Your task to perform on an android device: delete browsing data in the chrome app Image 0: 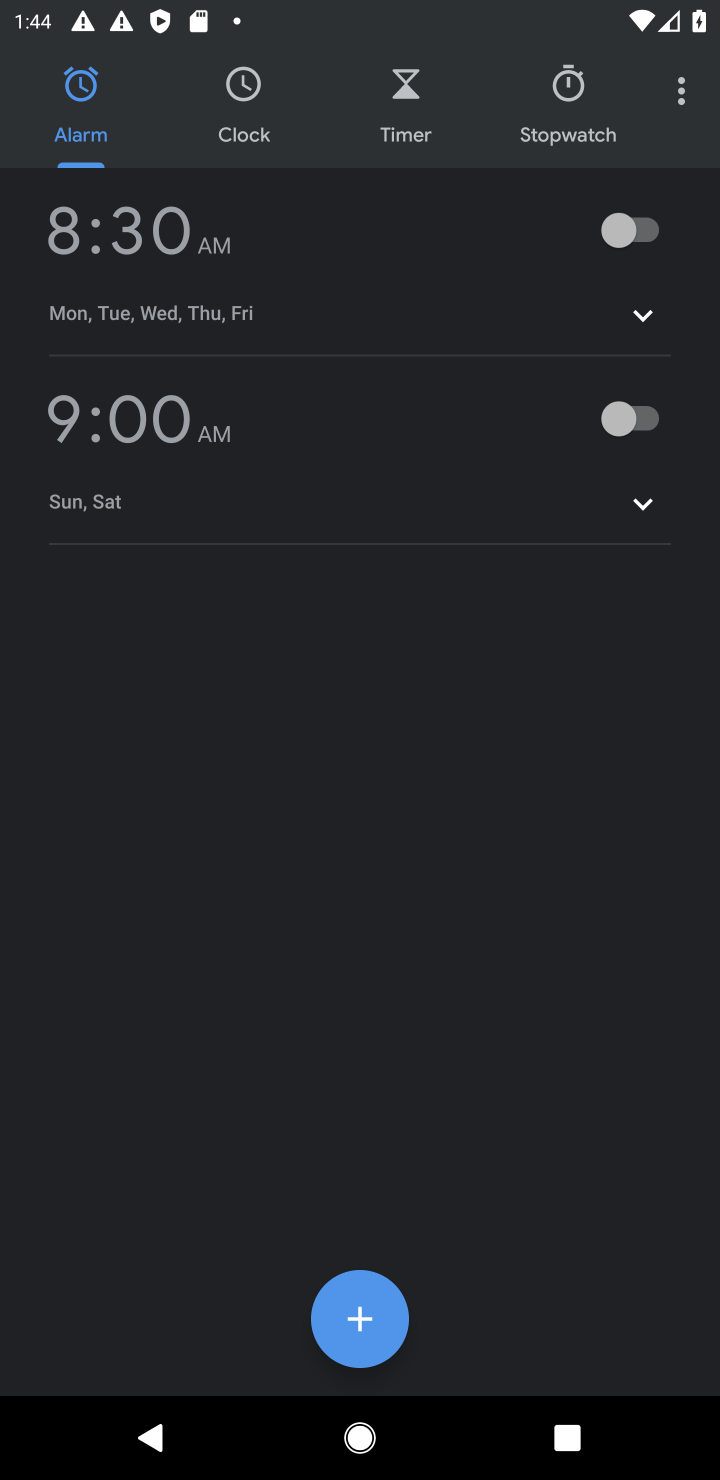
Step 0: click (349, 232)
Your task to perform on an android device: delete browsing data in the chrome app Image 1: 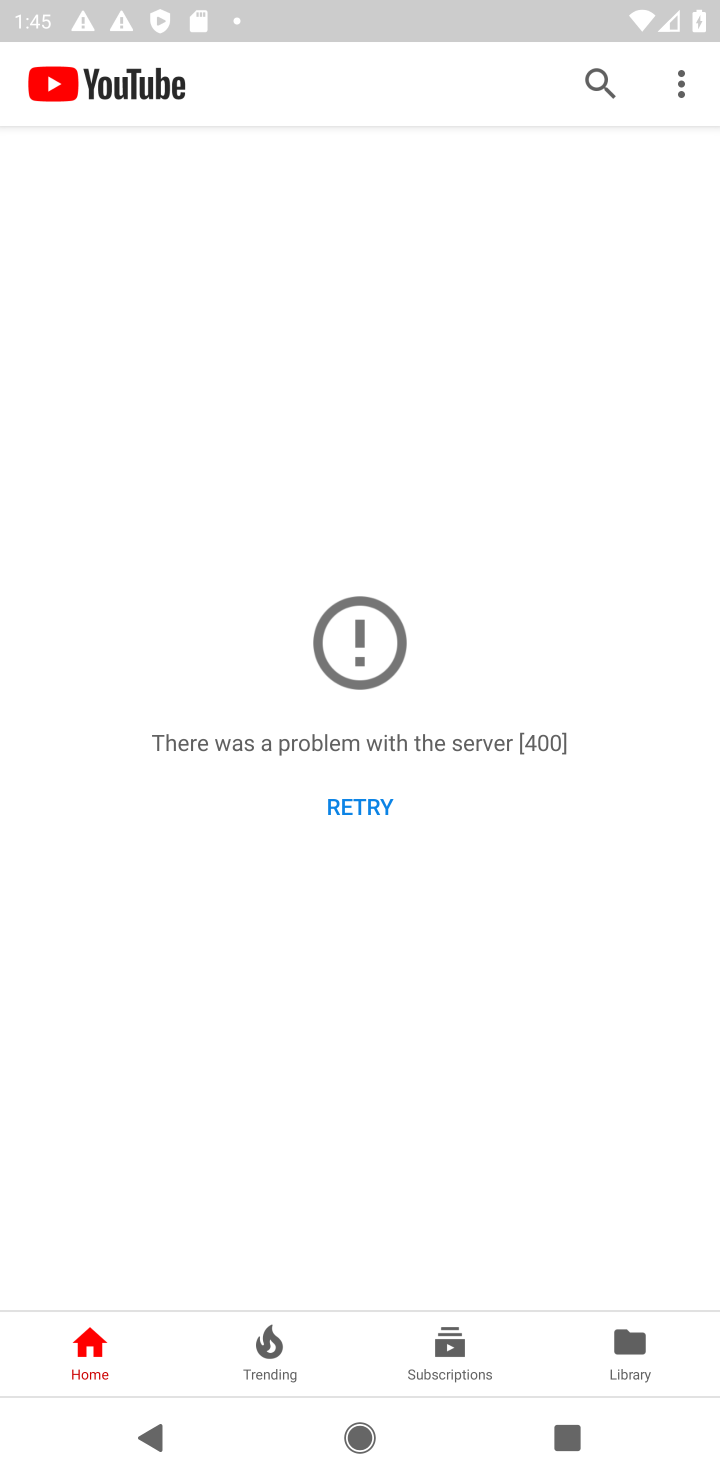
Step 1: press home button
Your task to perform on an android device: delete browsing data in the chrome app Image 2: 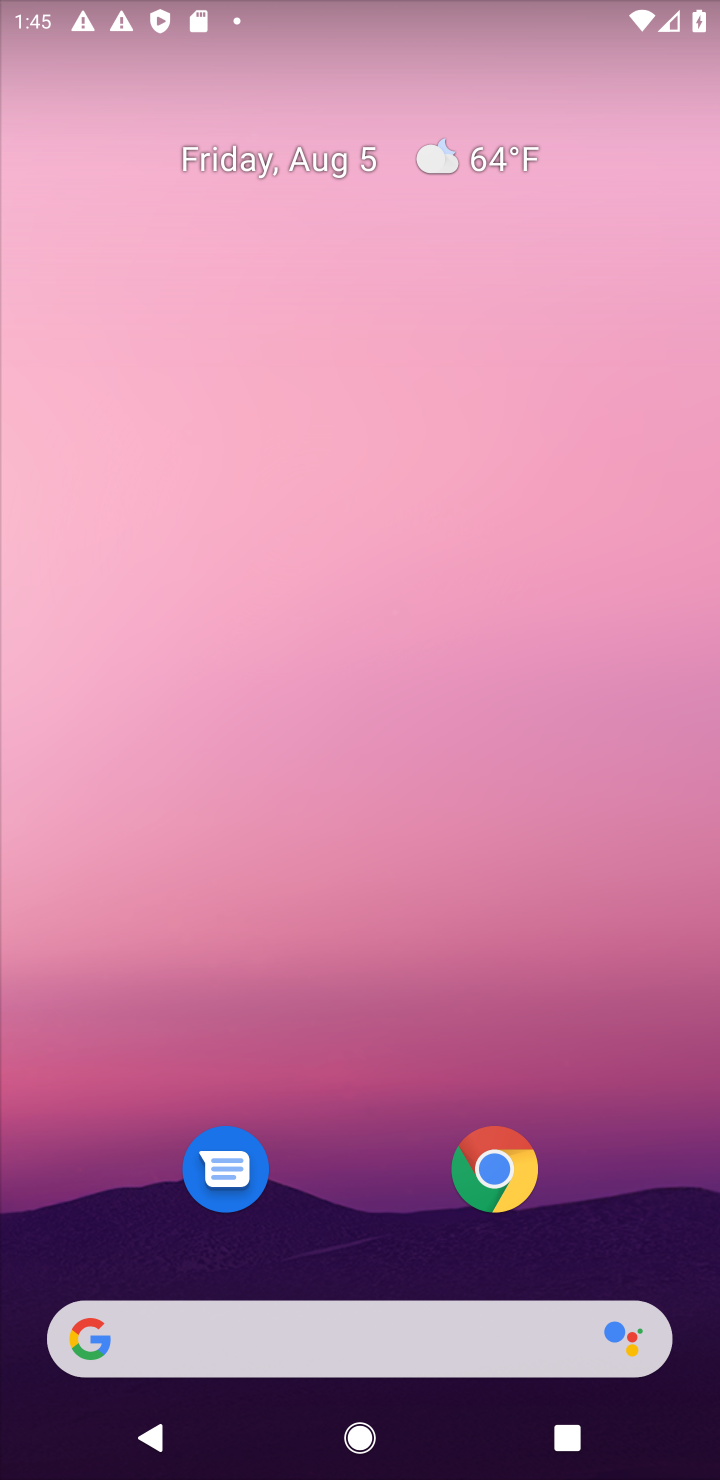
Step 2: click (449, 1159)
Your task to perform on an android device: delete browsing data in the chrome app Image 3: 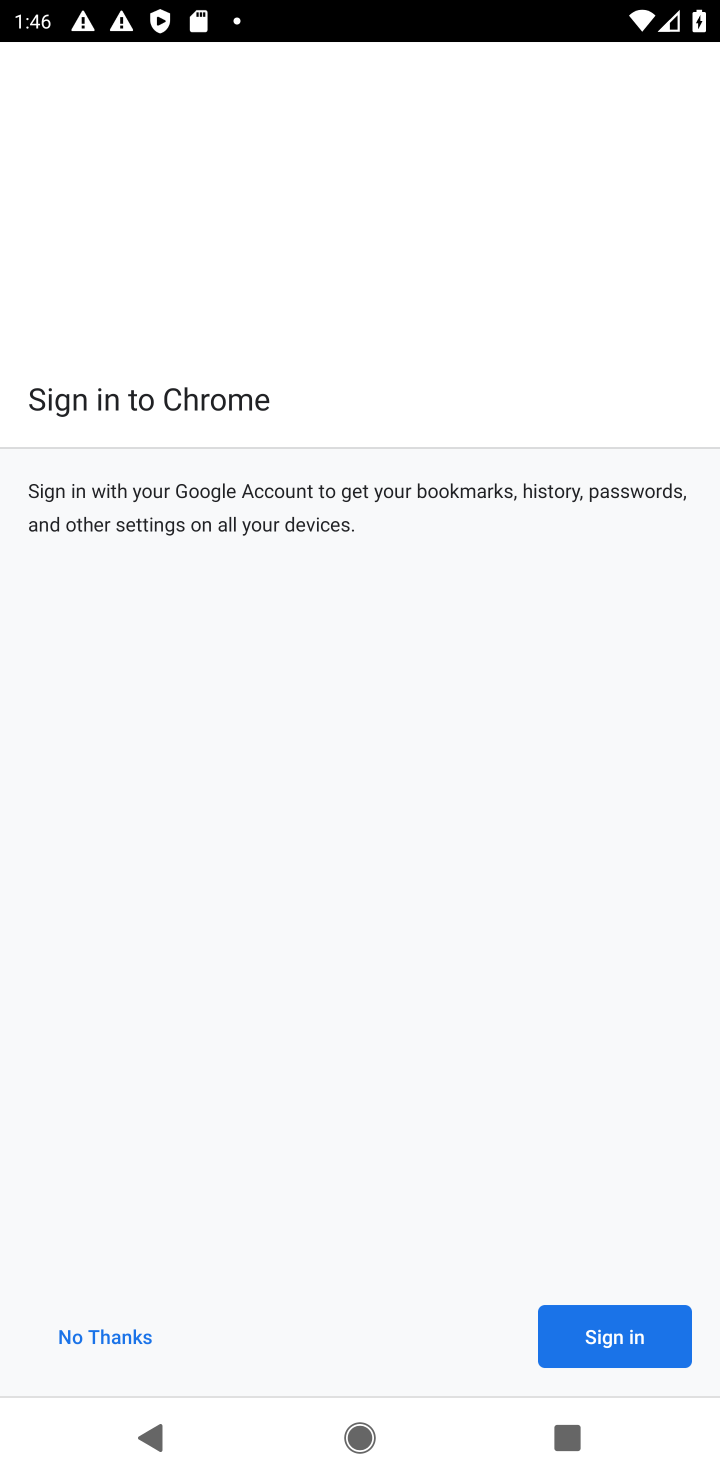
Step 3: click (628, 1335)
Your task to perform on an android device: delete browsing data in the chrome app Image 4: 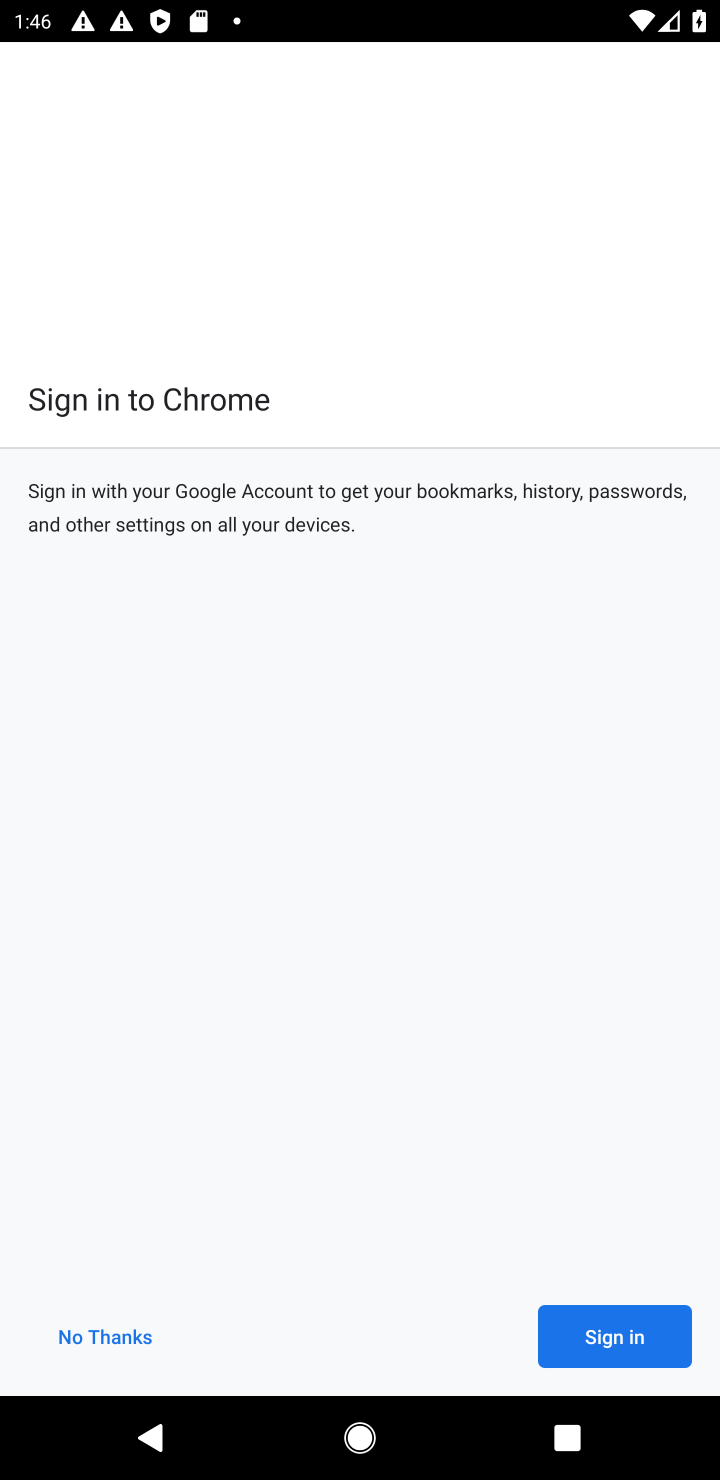
Step 4: click (613, 1328)
Your task to perform on an android device: delete browsing data in the chrome app Image 5: 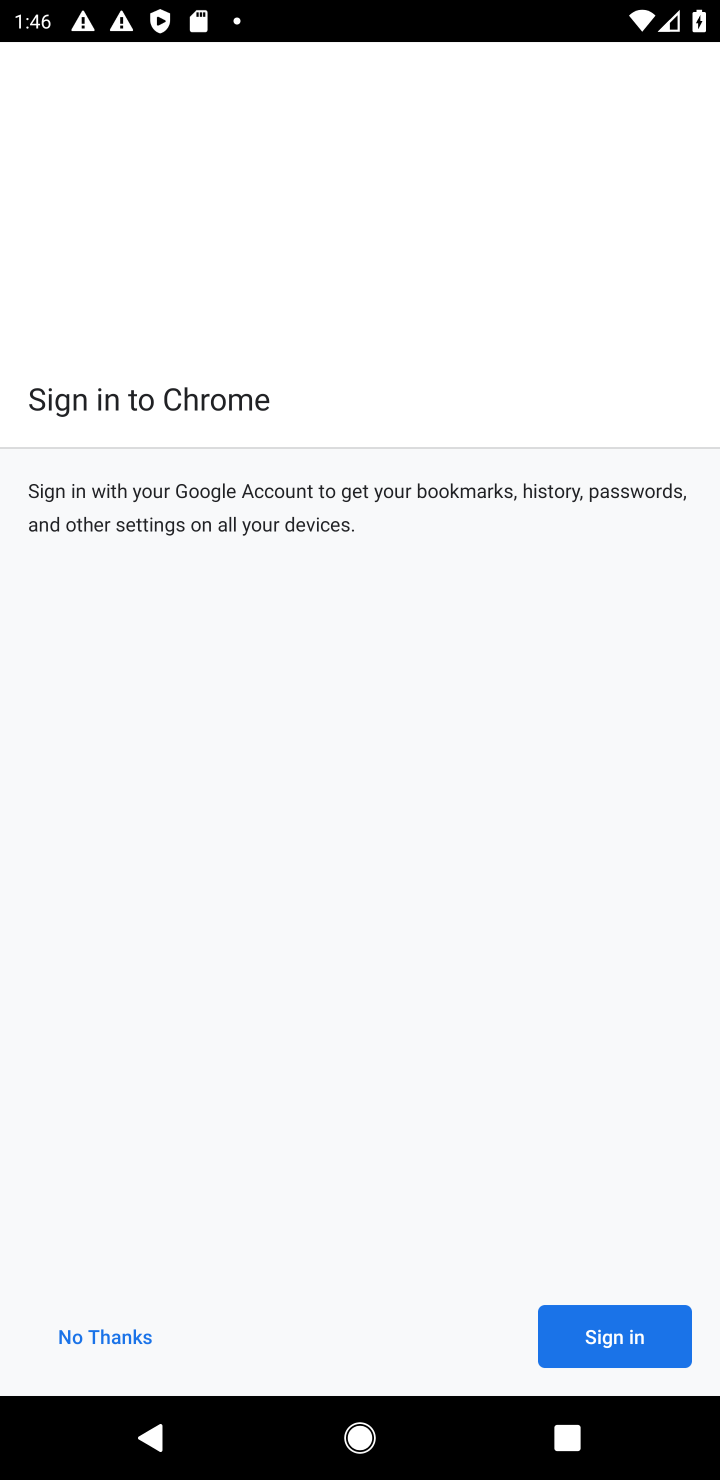
Step 5: click (613, 1328)
Your task to perform on an android device: delete browsing data in the chrome app Image 6: 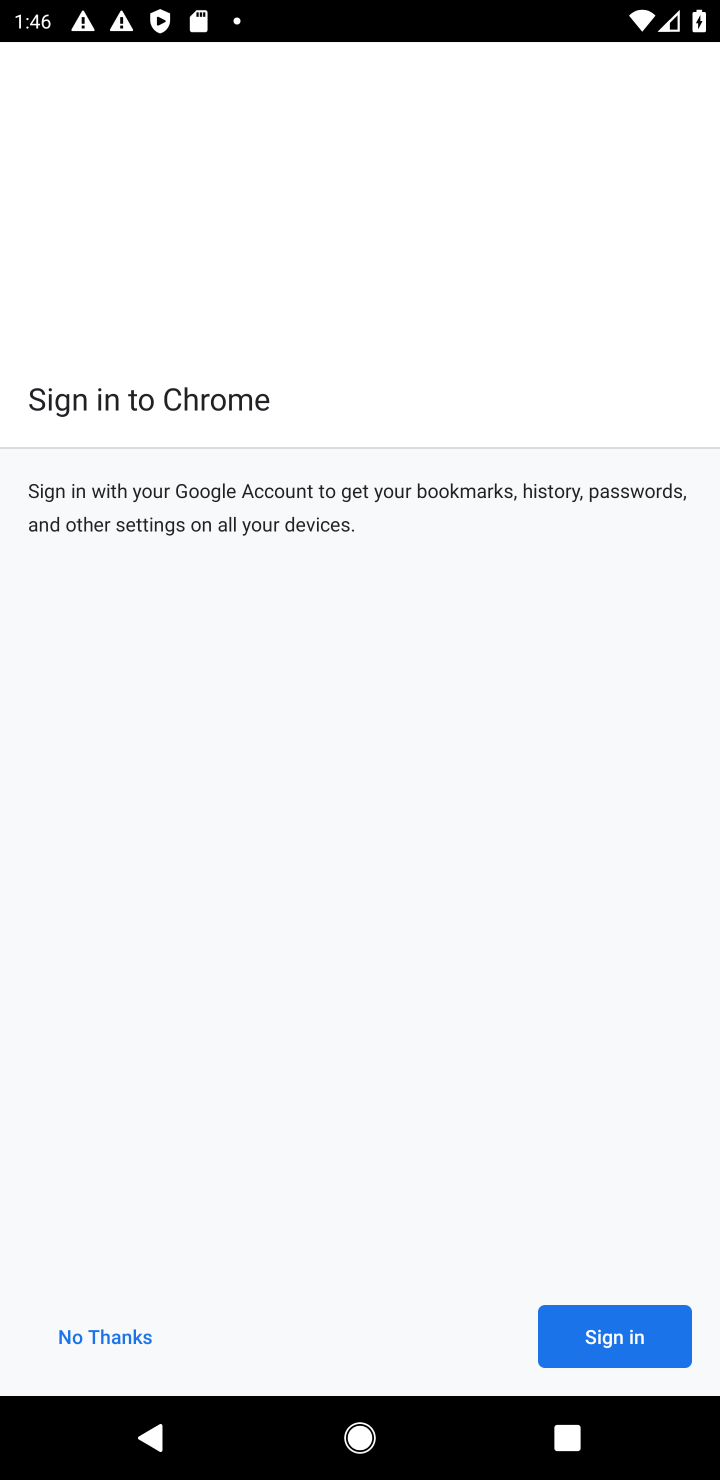
Step 6: click (613, 1328)
Your task to perform on an android device: delete browsing data in the chrome app Image 7: 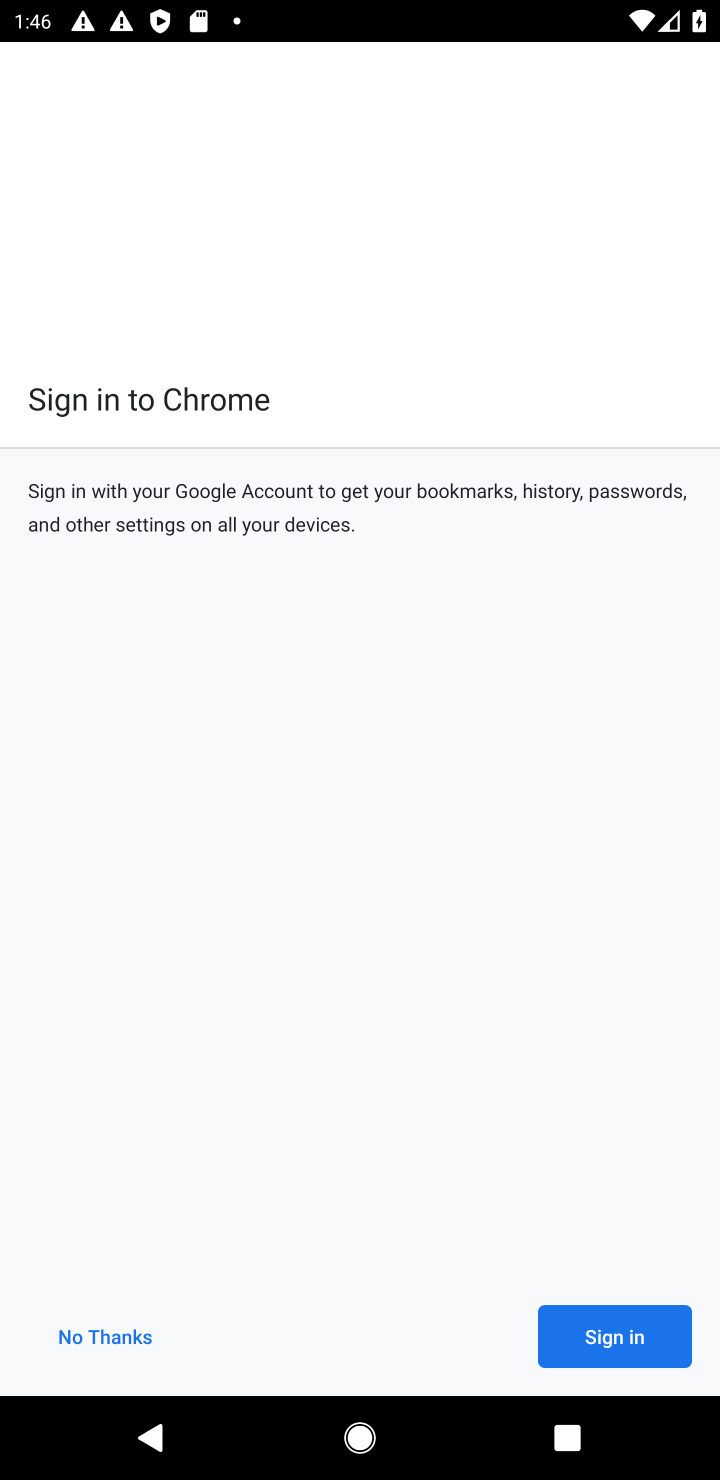
Step 7: click (613, 1328)
Your task to perform on an android device: delete browsing data in the chrome app Image 8: 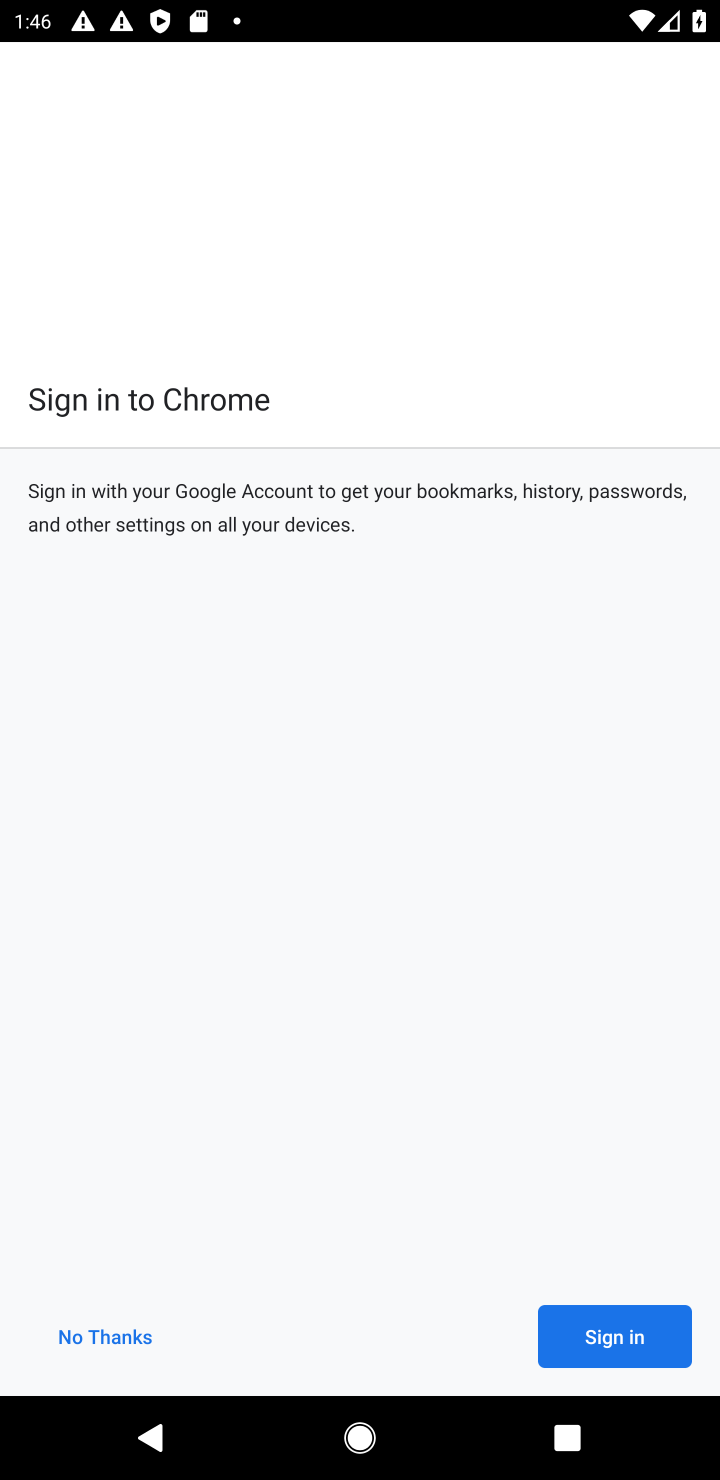
Step 8: click (557, 1307)
Your task to perform on an android device: delete browsing data in the chrome app Image 9: 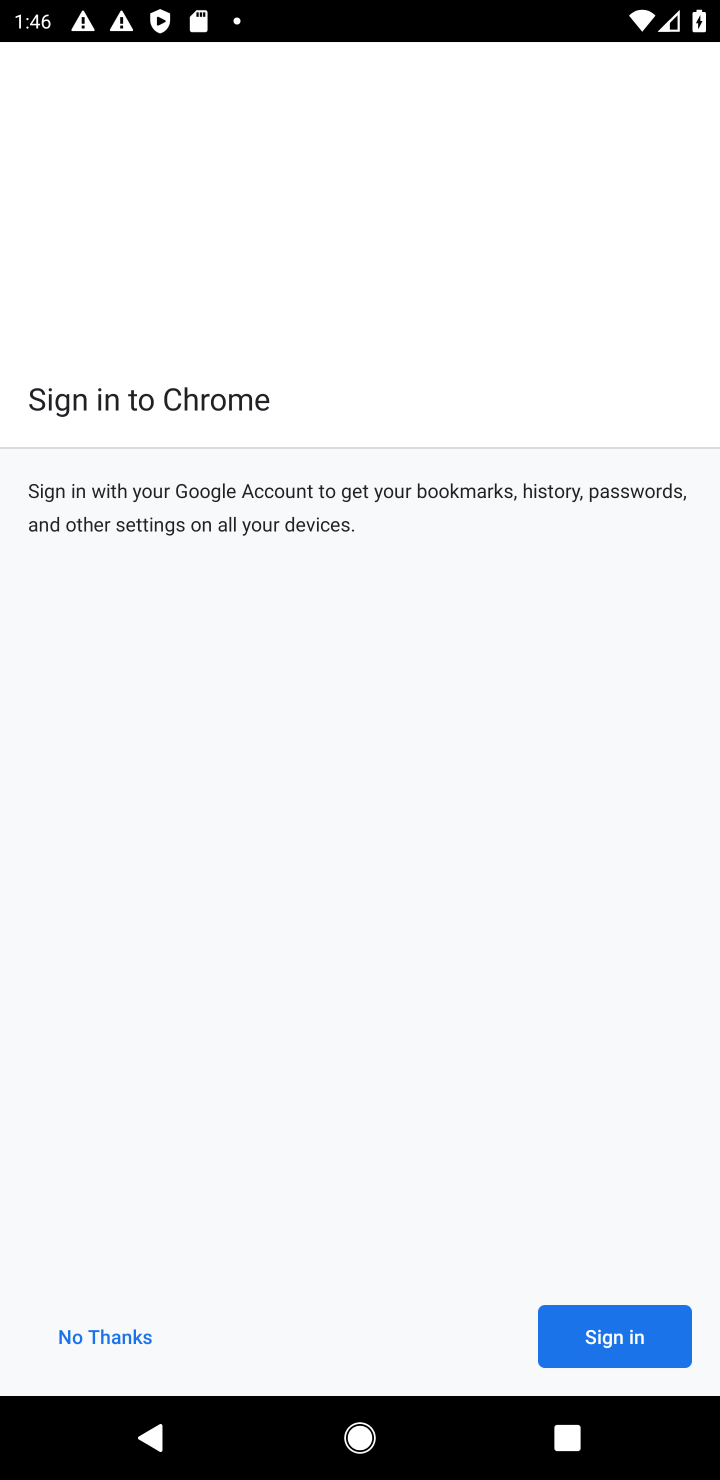
Step 9: task complete